Your task to perform on an android device: toggle airplane mode Image 0: 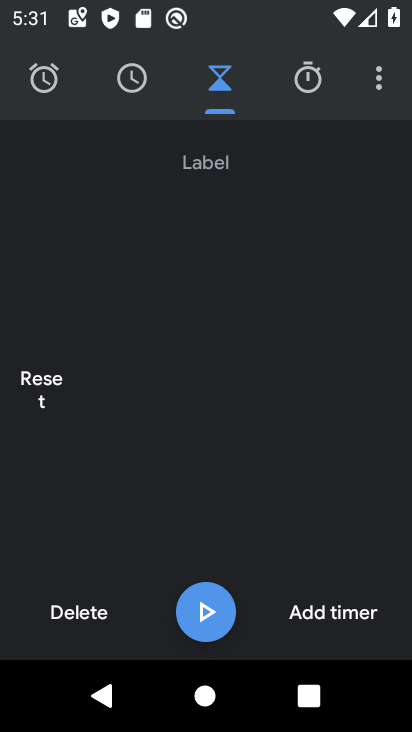
Step 0: press back button
Your task to perform on an android device: toggle airplane mode Image 1: 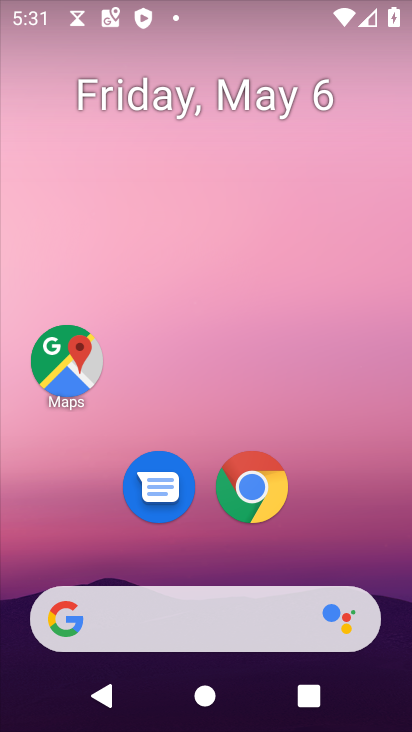
Step 1: drag from (333, 538) to (252, 2)
Your task to perform on an android device: toggle airplane mode Image 2: 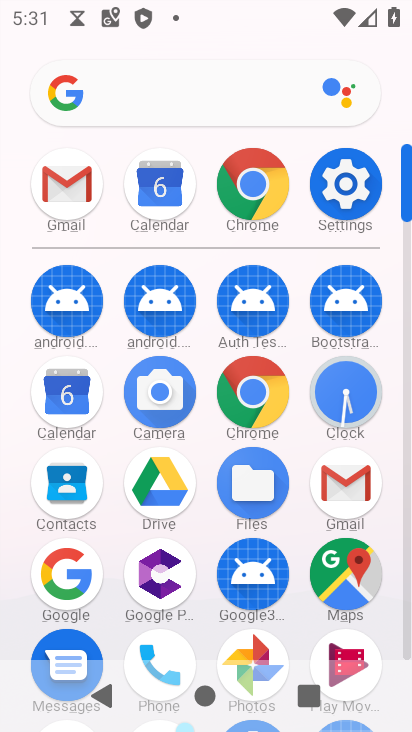
Step 2: click (346, 184)
Your task to perform on an android device: toggle airplane mode Image 3: 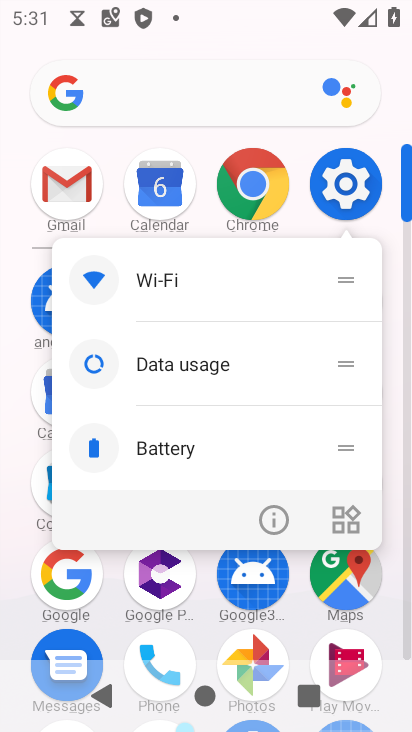
Step 3: click (346, 184)
Your task to perform on an android device: toggle airplane mode Image 4: 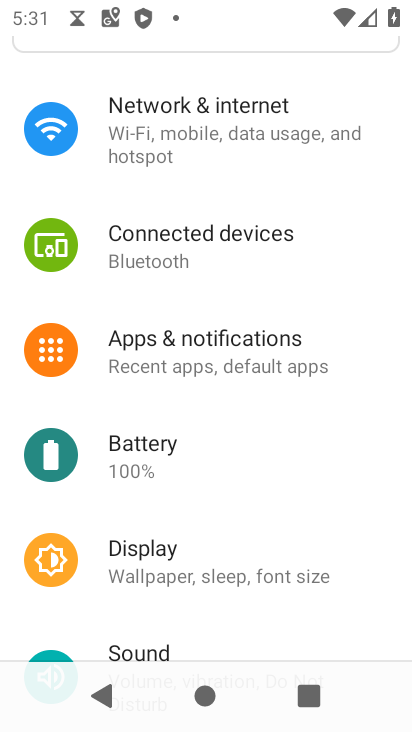
Step 4: drag from (183, 299) to (198, 404)
Your task to perform on an android device: toggle airplane mode Image 5: 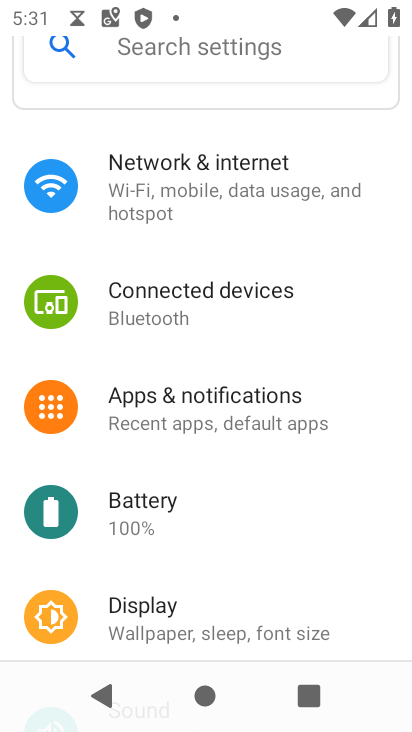
Step 5: click (176, 178)
Your task to perform on an android device: toggle airplane mode Image 6: 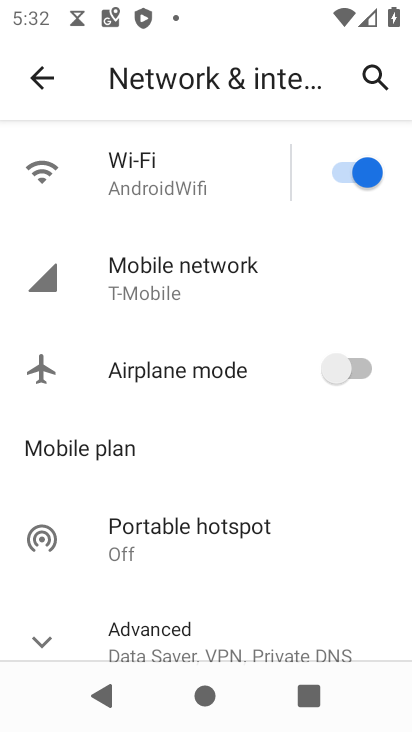
Step 6: click (356, 376)
Your task to perform on an android device: toggle airplane mode Image 7: 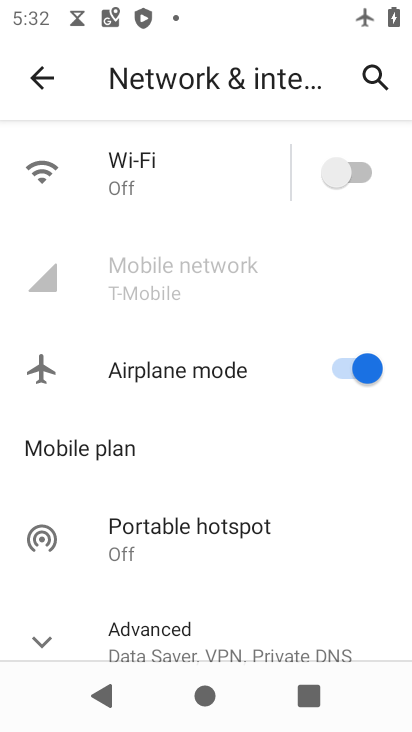
Step 7: task complete